Your task to perform on an android device: check google app version Image 0: 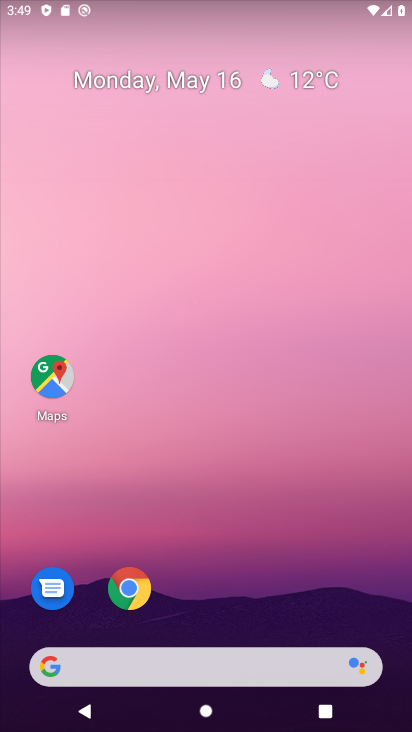
Step 0: drag from (256, 526) to (228, 160)
Your task to perform on an android device: check google app version Image 1: 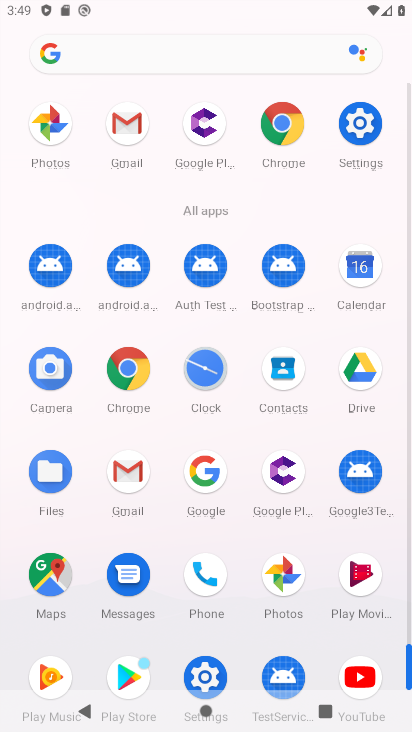
Step 1: click (201, 469)
Your task to perform on an android device: check google app version Image 2: 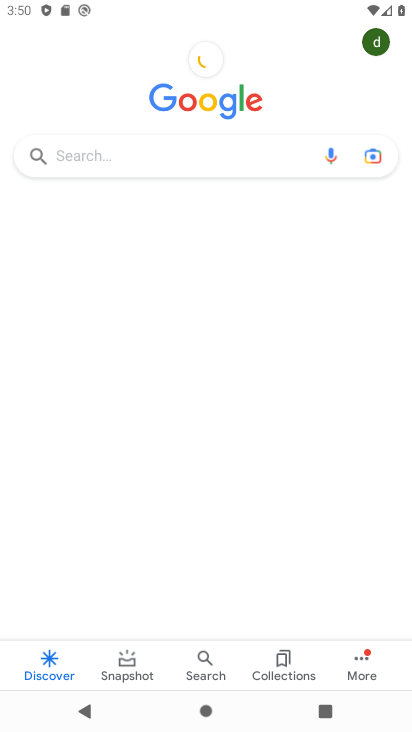
Step 2: click (363, 671)
Your task to perform on an android device: check google app version Image 3: 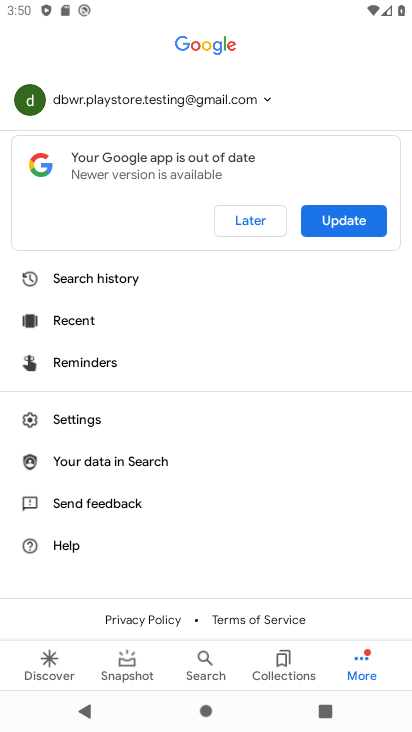
Step 3: click (107, 423)
Your task to perform on an android device: check google app version Image 4: 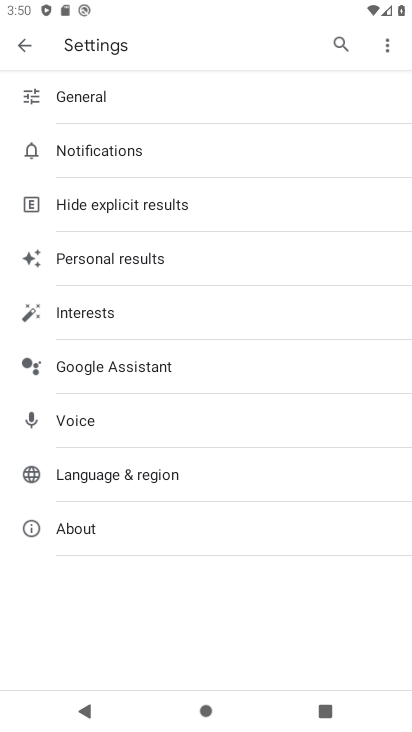
Step 4: click (138, 524)
Your task to perform on an android device: check google app version Image 5: 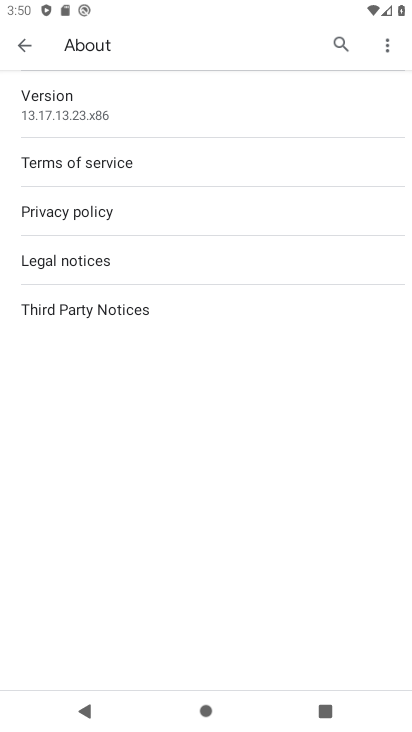
Step 5: click (177, 127)
Your task to perform on an android device: check google app version Image 6: 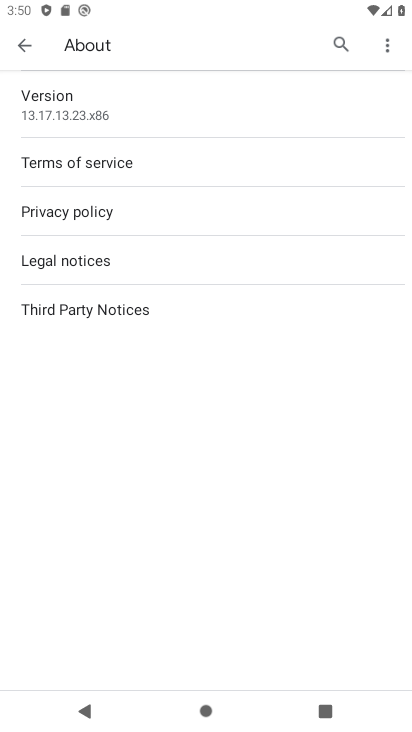
Step 6: task complete